Your task to perform on an android device: turn on sleep mode Image 0: 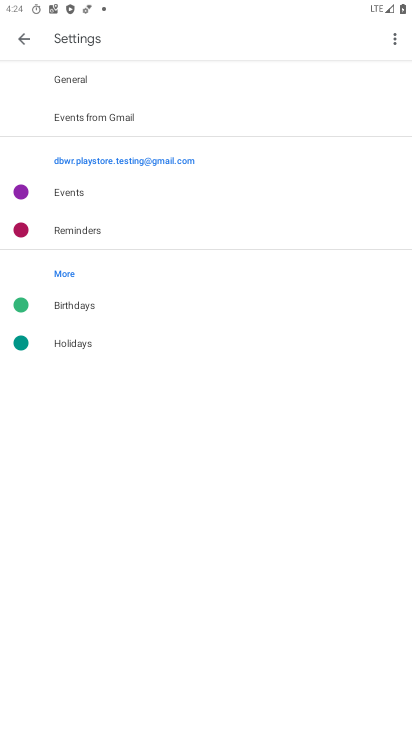
Step 0: press home button
Your task to perform on an android device: turn on sleep mode Image 1: 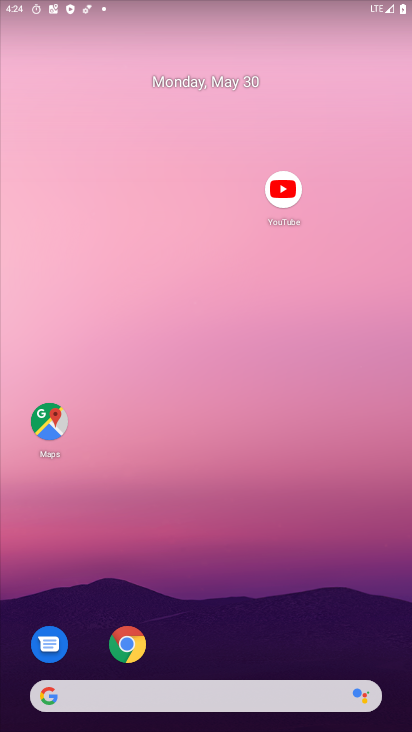
Step 1: drag from (222, 632) to (223, 282)
Your task to perform on an android device: turn on sleep mode Image 2: 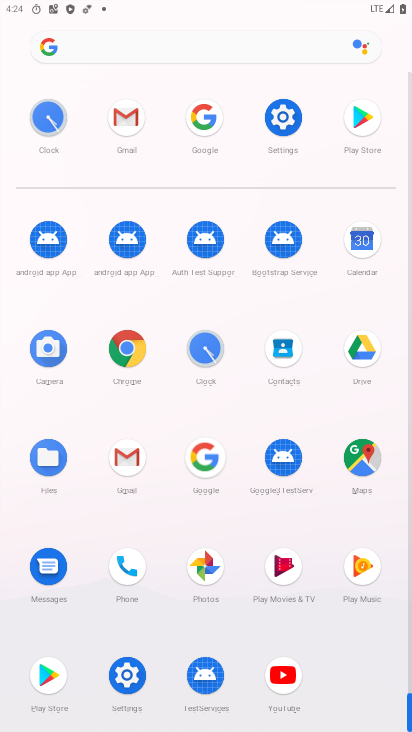
Step 2: click (277, 108)
Your task to perform on an android device: turn on sleep mode Image 3: 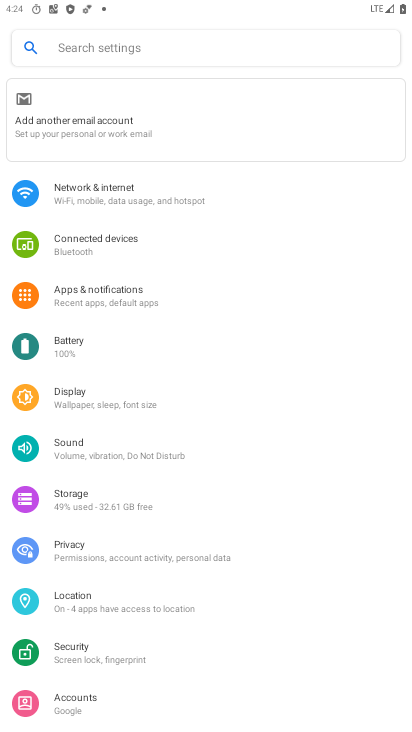
Step 3: task complete